Your task to perform on an android device: clear all cookies in the chrome app Image 0: 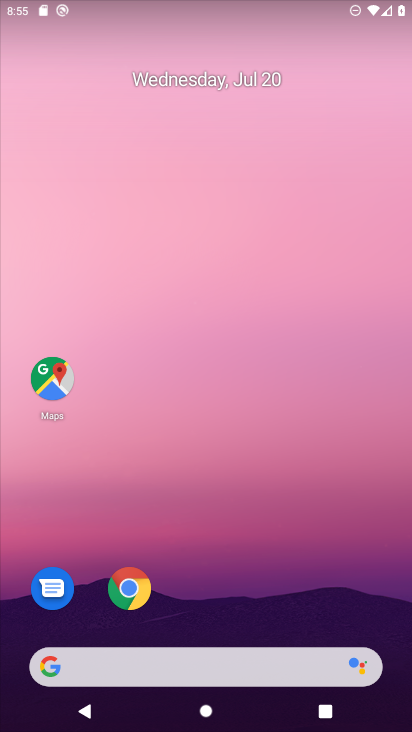
Step 0: click (131, 581)
Your task to perform on an android device: clear all cookies in the chrome app Image 1: 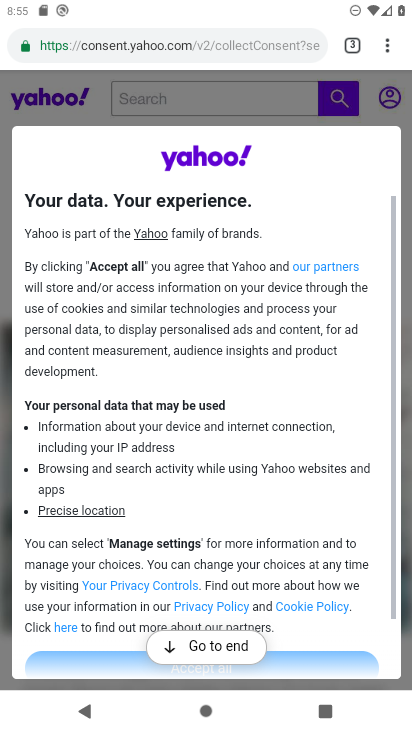
Step 1: click (384, 60)
Your task to perform on an android device: clear all cookies in the chrome app Image 2: 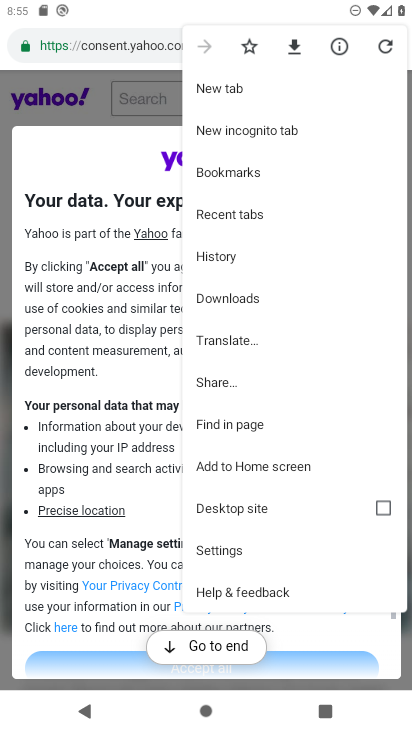
Step 2: click (269, 247)
Your task to perform on an android device: clear all cookies in the chrome app Image 3: 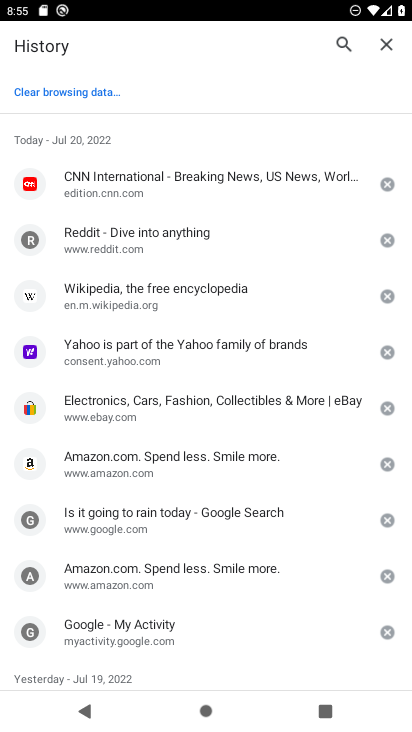
Step 3: click (95, 103)
Your task to perform on an android device: clear all cookies in the chrome app Image 4: 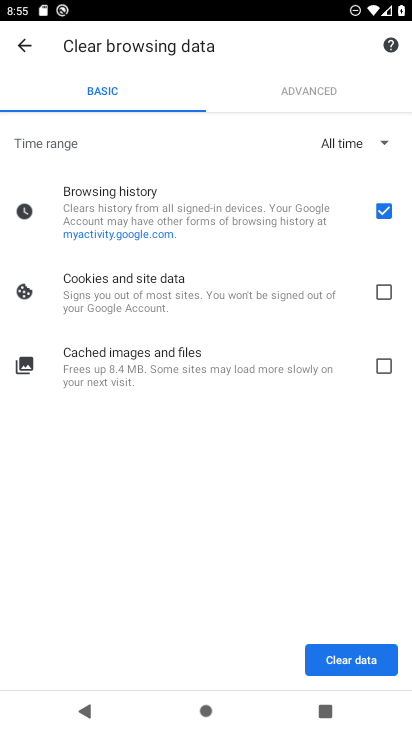
Step 4: click (387, 222)
Your task to perform on an android device: clear all cookies in the chrome app Image 5: 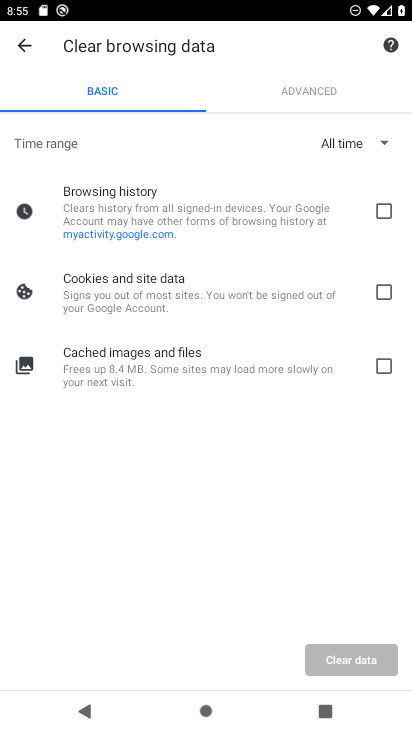
Step 5: click (387, 290)
Your task to perform on an android device: clear all cookies in the chrome app Image 6: 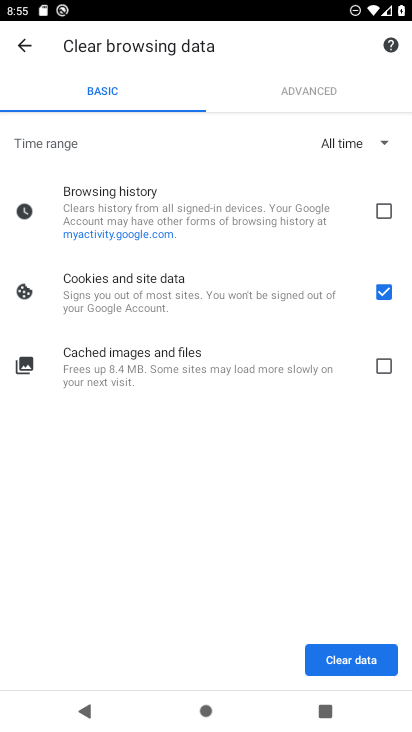
Step 6: click (360, 653)
Your task to perform on an android device: clear all cookies in the chrome app Image 7: 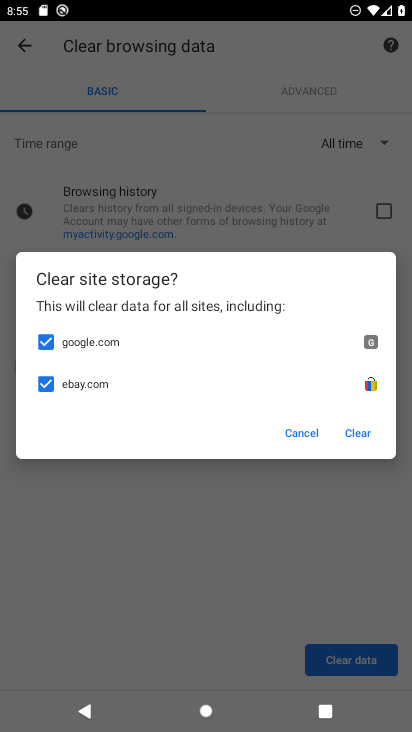
Step 7: click (366, 431)
Your task to perform on an android device: clear all cookies in the chrome app Image 8: 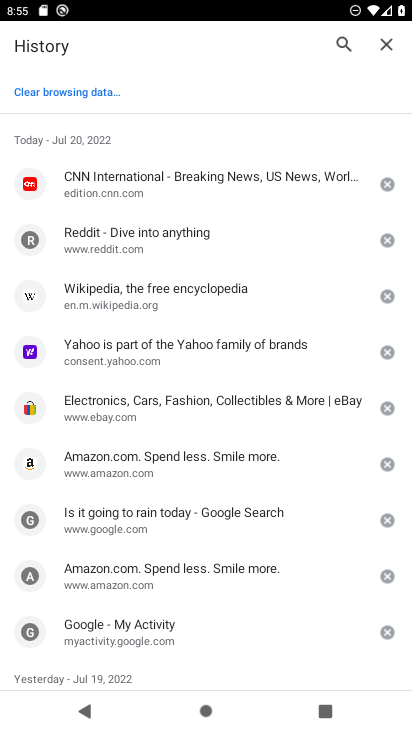
Step 8: task complete